Your task to perform on an android device: snooze an email in the gmail app Image 0: 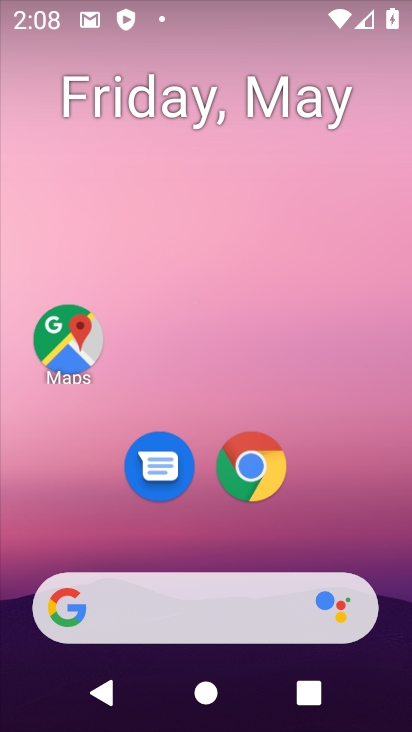
Step 0: drag from (205, 593) to (326, 60)
Your task to perform on an android device: snooze an email in the gmail app Image 1: 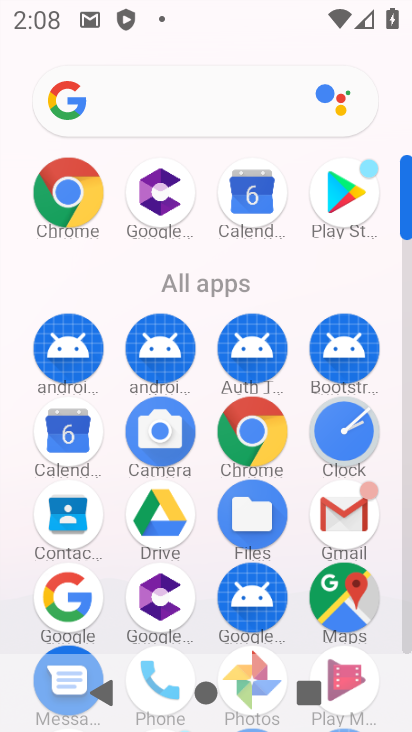
Step 1: click (361, 517)
Your task to perform on an android device: snooze an email in the gmail app Image 2: 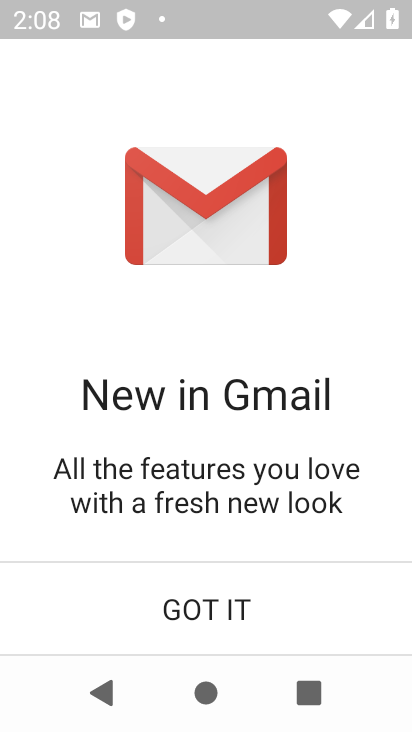
Step 2: click (215, 614)
Your task to perform on an android device: snooze an email in the gmail app Image 3: 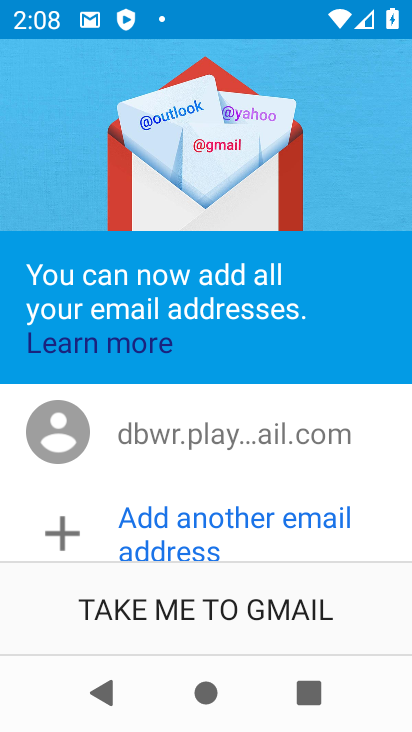
Step 3: click (208, 609)
Your task to perform on an android device: snooze an email in the gmail app Image 4: 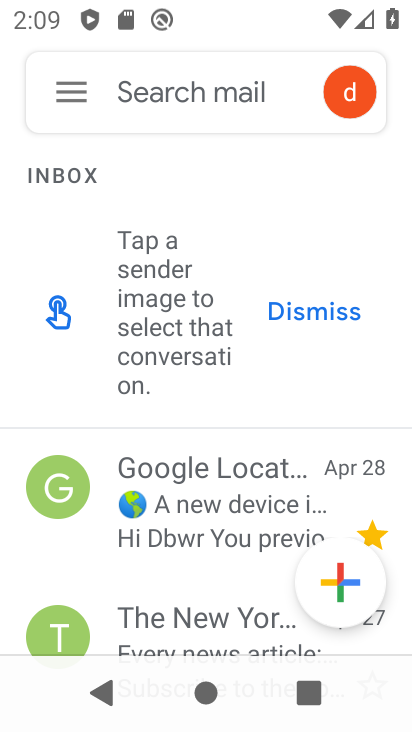
Step 4: drag from (190, 525) to (269, 125)
Your task to perform on an android device: snooze an email in the gmail app Image 5: 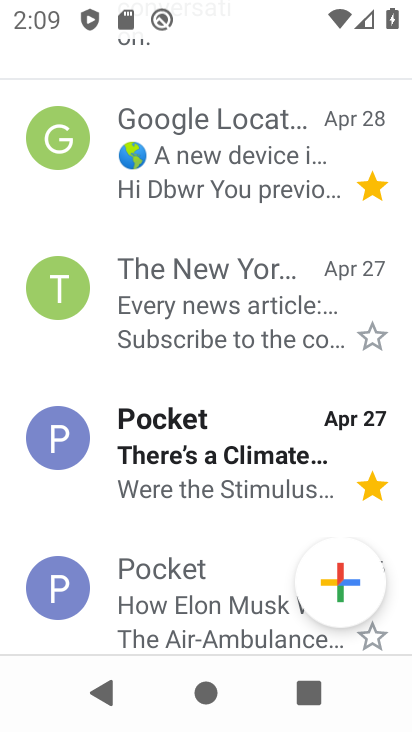
Step 5: click (202, 302)
Your task to perform on an android device: snooze an email in the gmail app Image 6: 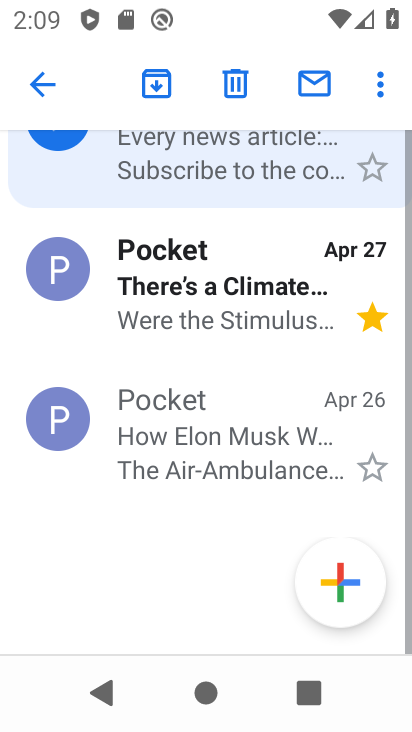
Step 6: click (375, 82)
Your task to perform on an android device: snooze an email in the gmail app Image 7: 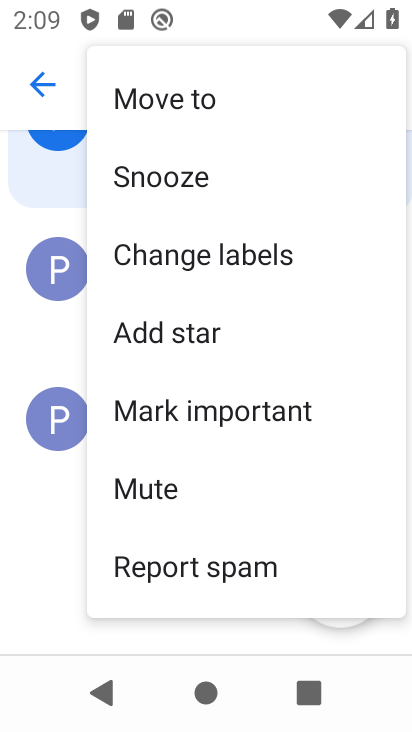
Step 7: click (201, 168)
Your task to perform on an android device: snooze an email in the gmail app Image 8: 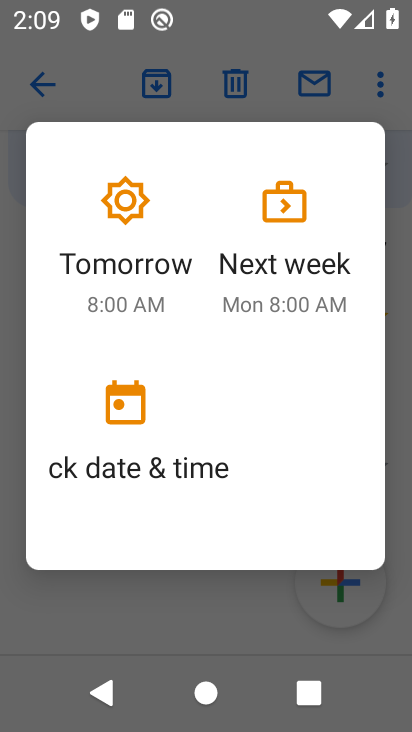
Step 8: click (179, 254)
Your task to perform on an android device: snooze an email in the gmail app Image 9: 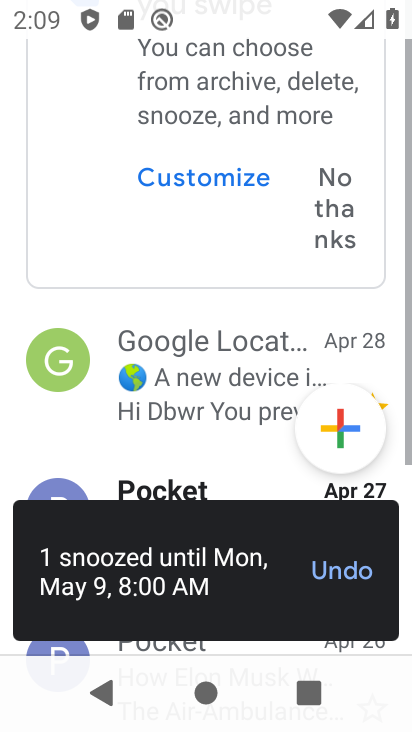
Step 9: task complete